Your task to perform on an android device: Open privacy settings Image 0: 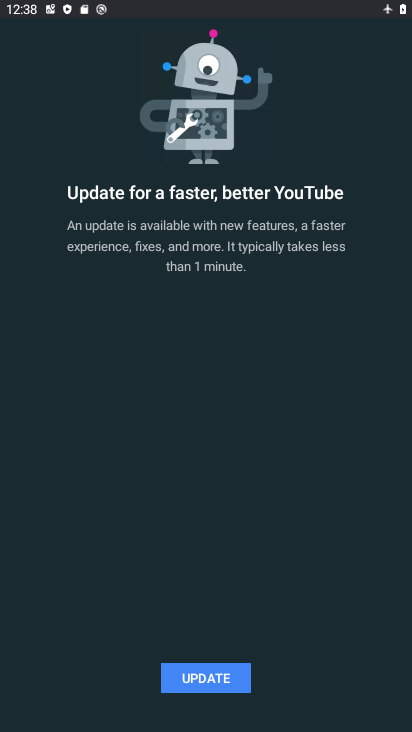
Step 0: press home button
Your task to perform on an android device: Open privacy settings Image 1: 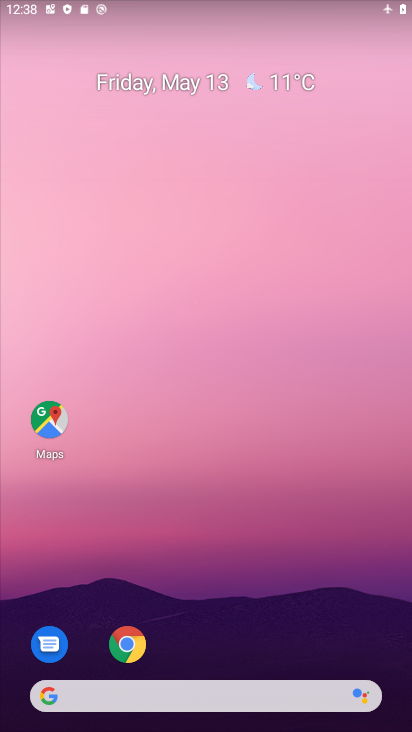
Step 1: drag from (234, 726) to (259, 53)
Your task to perform on an android device: Open privacy settings Image 2: 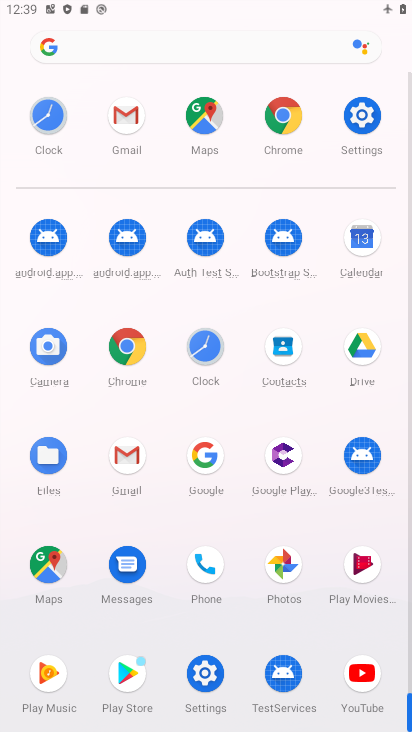
Step 2: click (369, 113)
Your task to perform on an android device: Open privacy settings Image 3: 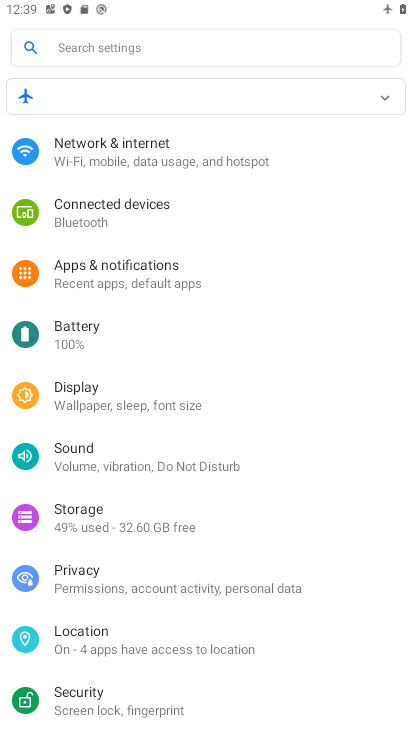
Step 3: click (97, 582)
Your task to perform on an android device: Open privacy settings Image 4: 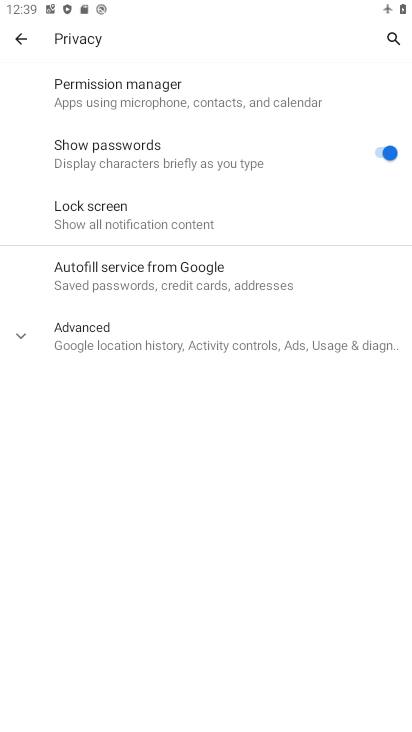
Step 4: task complete